Your task to perform on an android device: What's the weather going to be this weekend? Image 0: 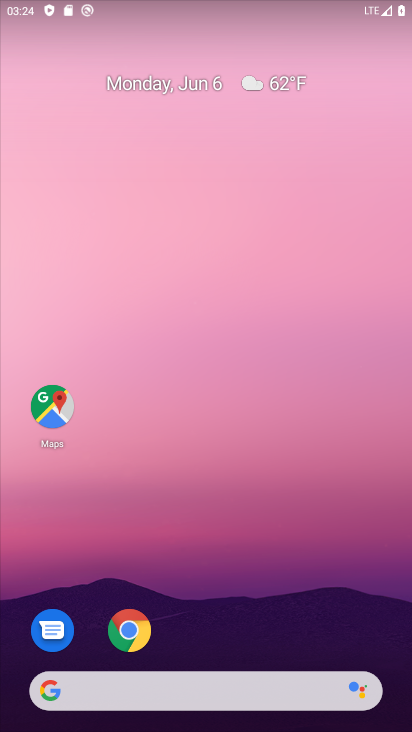
Step 0: press home button
Your task to perform on an android device: What's the weather going to be this weekend? Image 1: 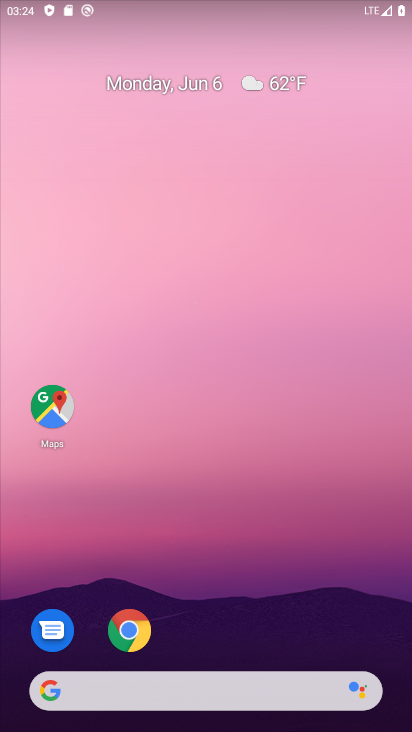
Step 1: click (129, 630)
Your task to perform on an android device: What's the weather going to be this weekend? Image 2: 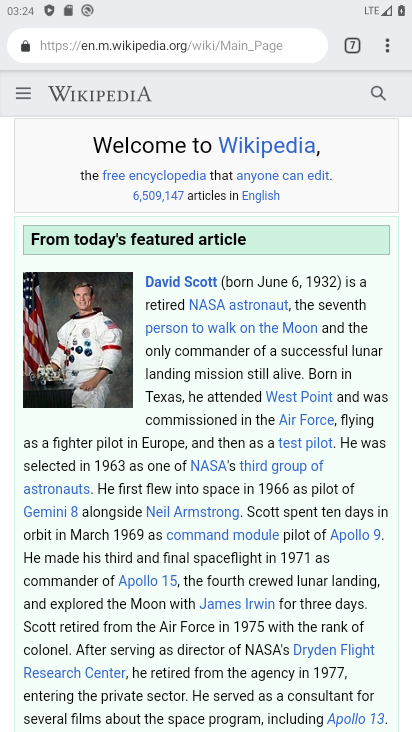
Step 2: click (148, 32)
Your task to perform on an android device: What's the weather going to be this weekend? Image 3: 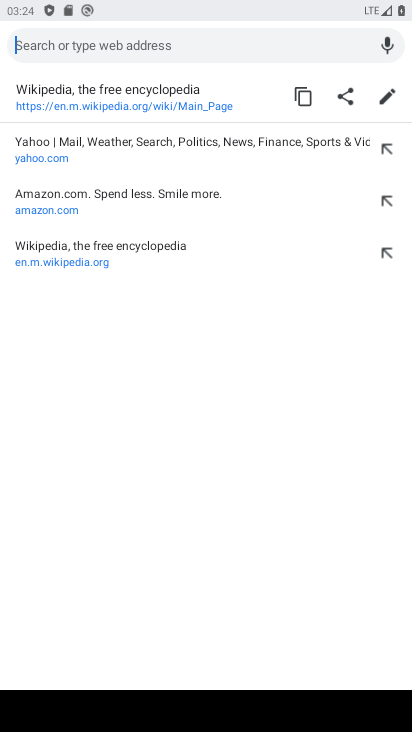
Step 3: click (148, 32)
Your task to perform on an android device: What's the weather going to be this weekend? Image 4: 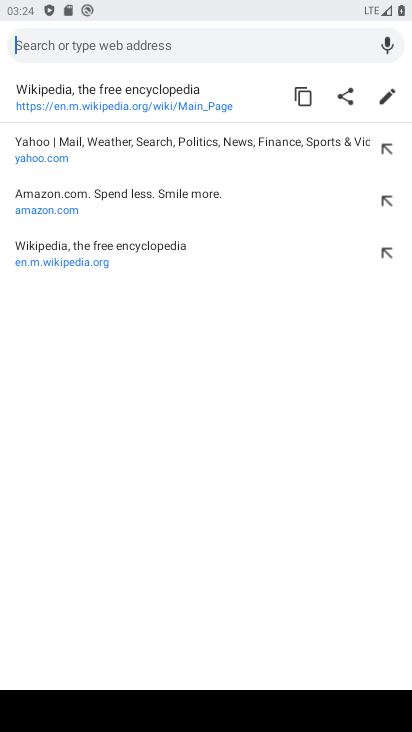
Step 4: type "What's the weather going to be this weekend?"
Your task to perform on an android device: What's the weather going to be this weekend? Image 5: 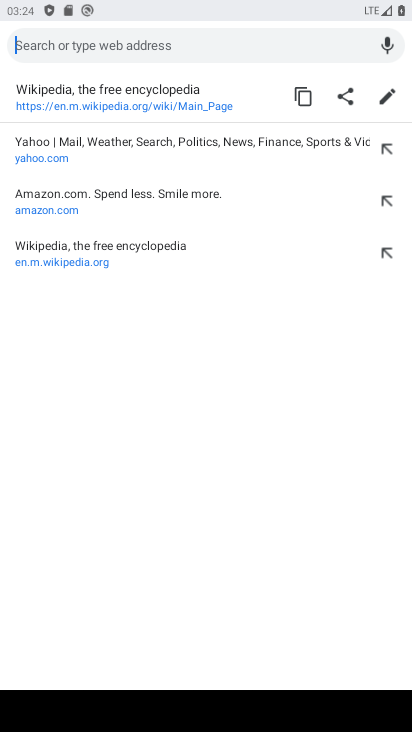
Step 5: click (204, 88)
Your task to perform on an android device: What's the weather going to be this weekend? Image 6: 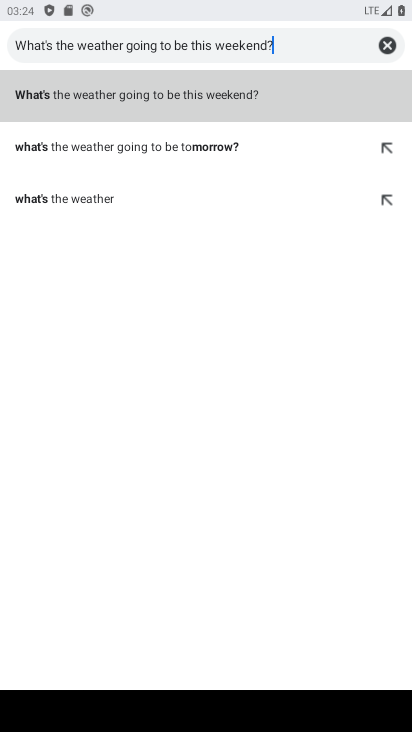
Step 6: type ""
Your task to perform on an android device: What's the weather going to be this weekend? Image 7: 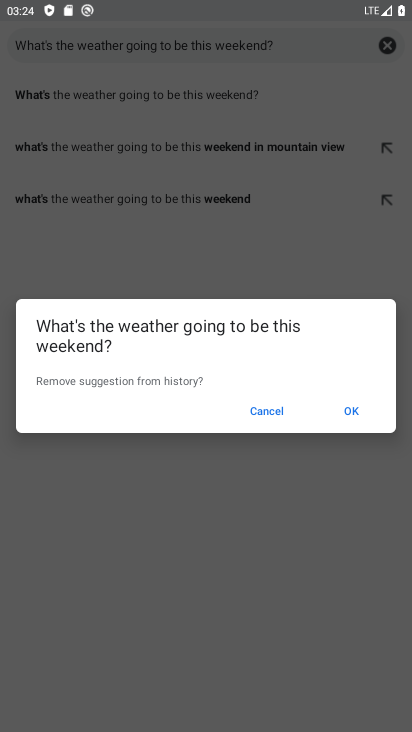
Step 7: click (272, 408)
Your task to perform on an android device: What's the weather going to be this weekend? Image 8: 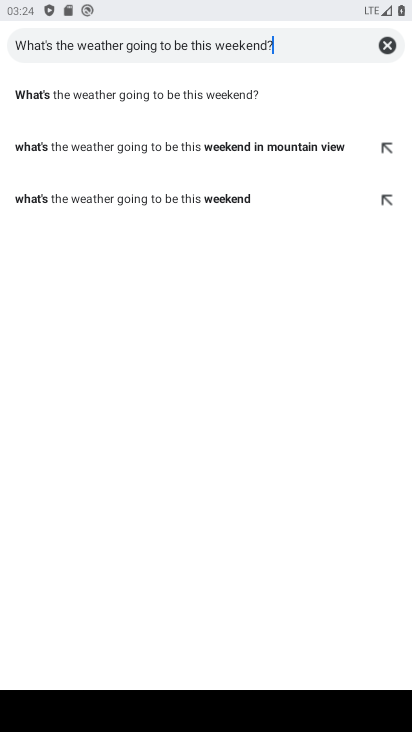
Step 8: click (112, 94)
Your task to perform on an android device: What's the weather going to be this weekend? Image 9: 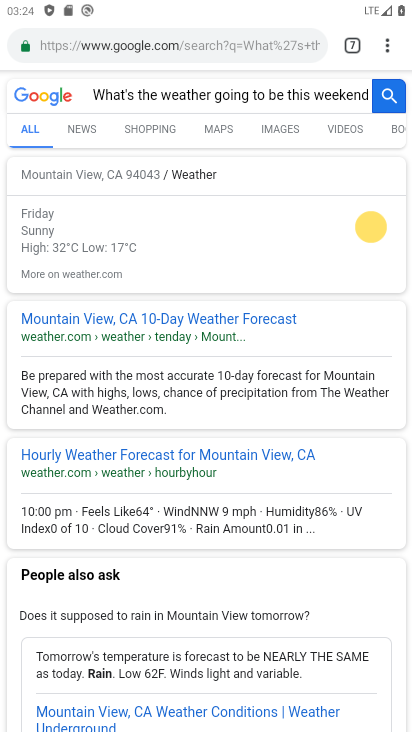
Step 9: task complete